Your task to perform on an android device: turn off location history Image 0: 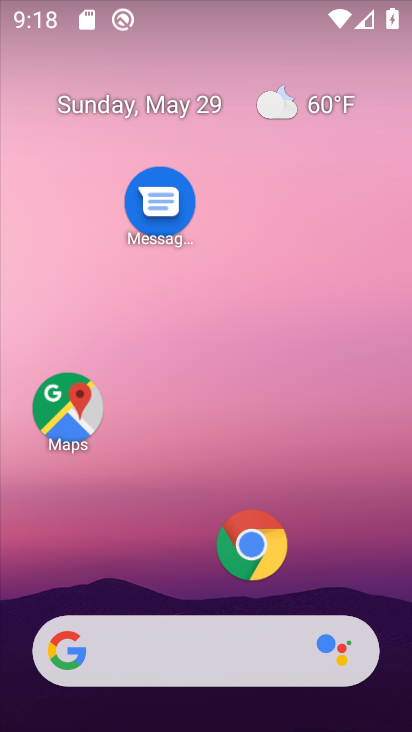
Step 0: drag from (241, 611) to (333, 106)
Your task to perform on an android device: turn off location history Image 1: 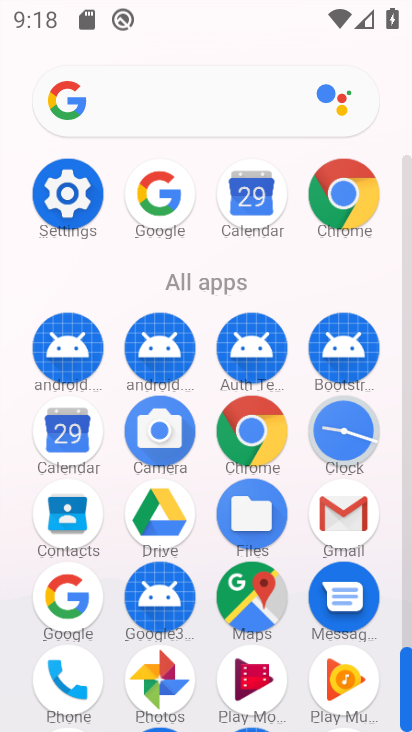
Step 1: click (76, 185)
Your task to perform on an android device: turn off location history Image 2: 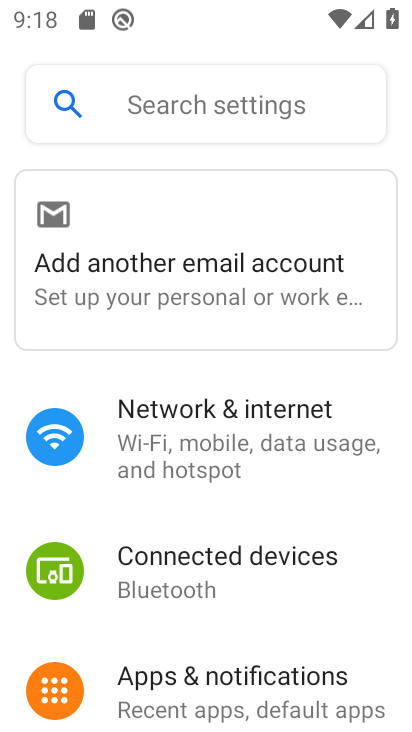
Step 2: click (186, 710)
Your task to perform on an android device: turn off location history Image 3: 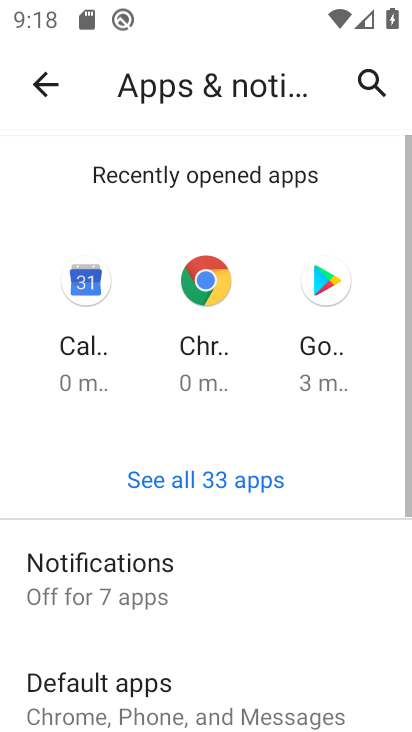
Step 3: press back button
Your task to perform on an android device: turn off location history Image 4: 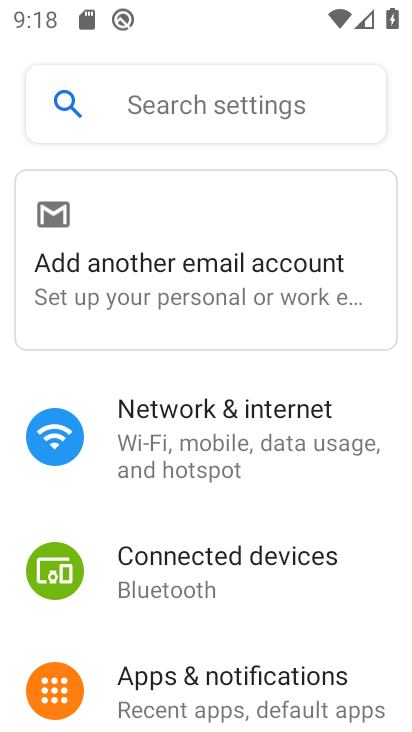
Step 4: drag from (217, 713) to (291, 166)
Your task to perform on an android device: turn off location history Image 5: 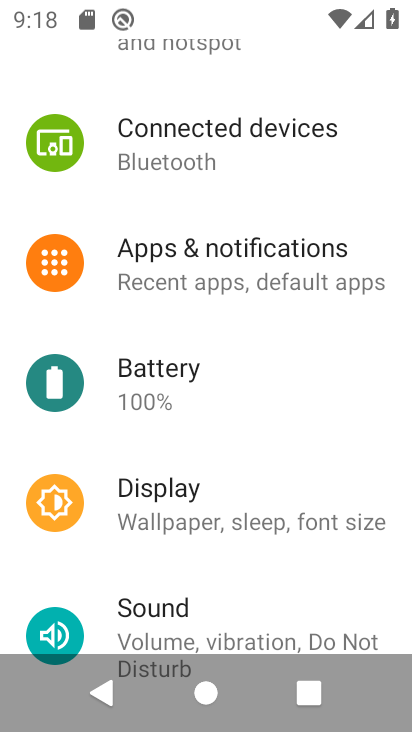
Step 5: drag from (297, 623) to (325, 195)
Your task to perform on an android device: turn off location history Image 6: 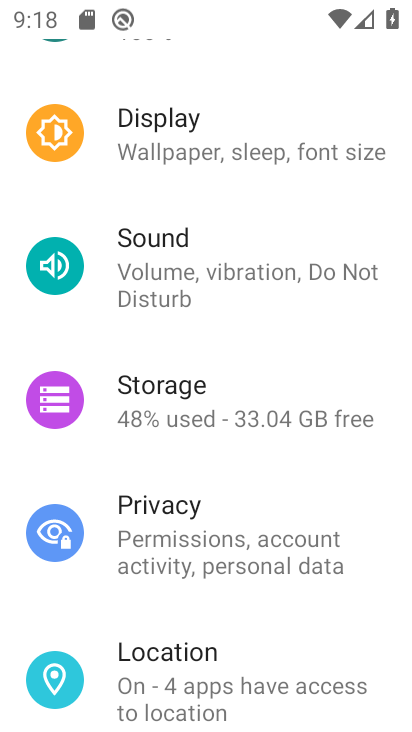
Step 6: click (177, 664)
Your task to perform on an android device: turn off location history Image 7: 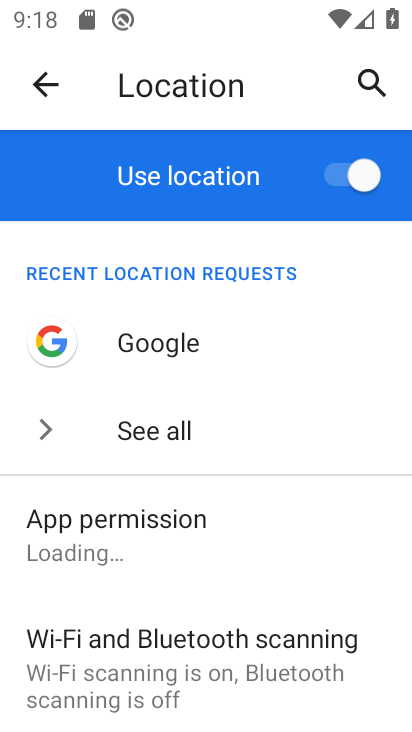
Step 7: click (171, 698)
Your task to perform on an android device: turn off location history Image 8: 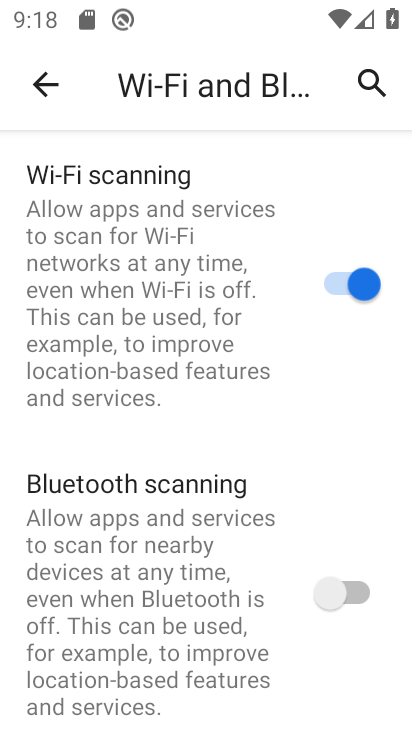
Step 8: click (284, 160)
Your task to perform on an android device: turn off location history Image 9: 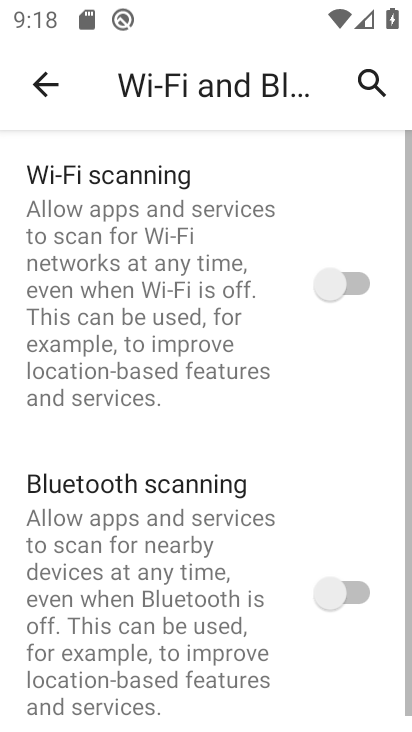
Step 9: click (36, 82)
Your task to perform on an android device: turn off location history Image 10: 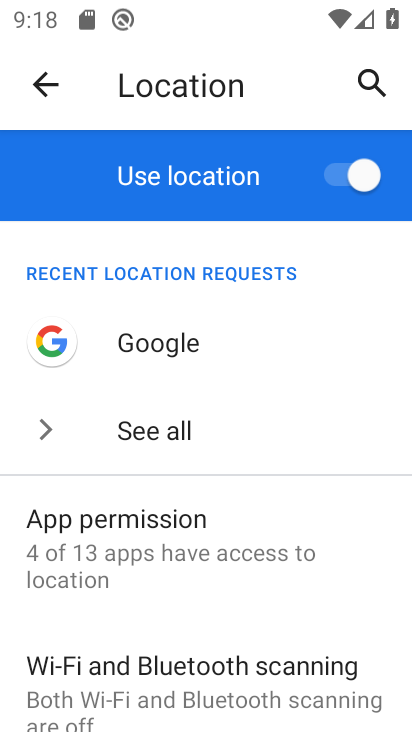
Step 10: drag from (246, 579) to (285, 203)
Your task to perform on an android device: turn off location history Image 11: 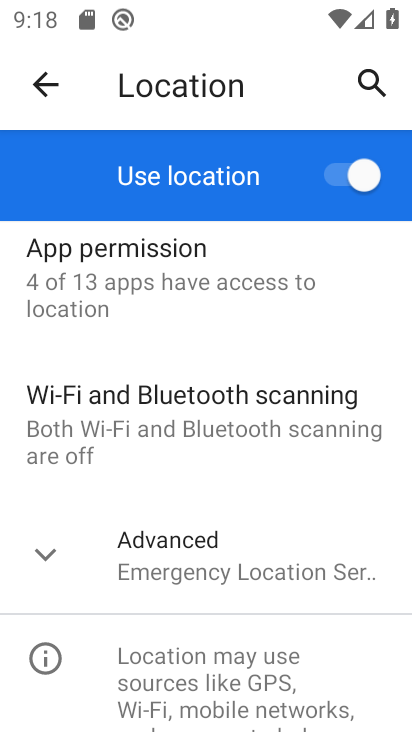
Step 11: click (204, 556)
Your task to perform on an android device: turn off location history Image 12: 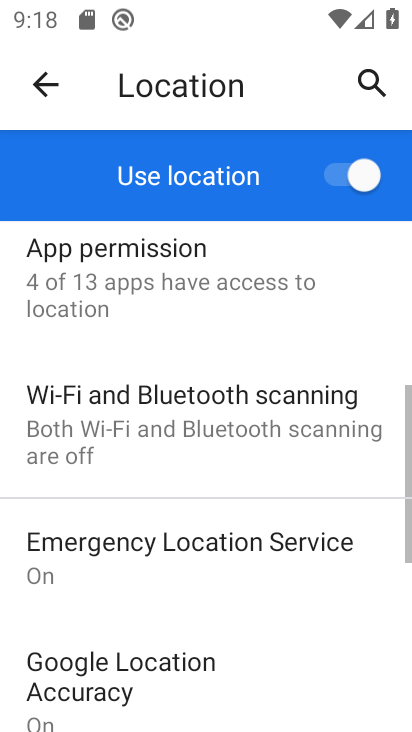
Step 12: drag from (312, 699) to (329, 227)
Your task to perform on an android device: turn off location history Image 13: 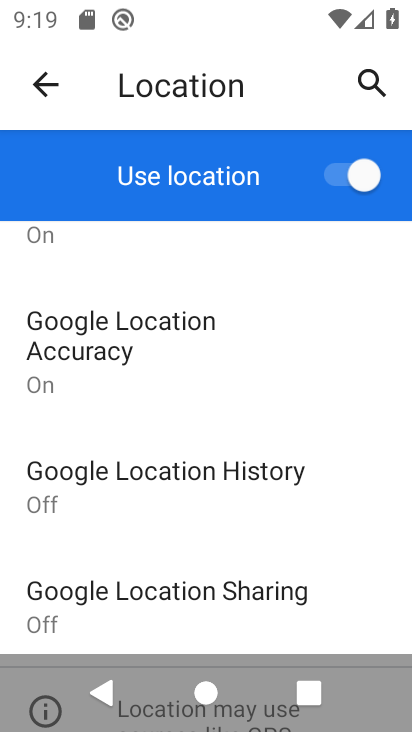
Step 13: click (222, 591)
Your task to perform on an android device: turn off location history Image 14: 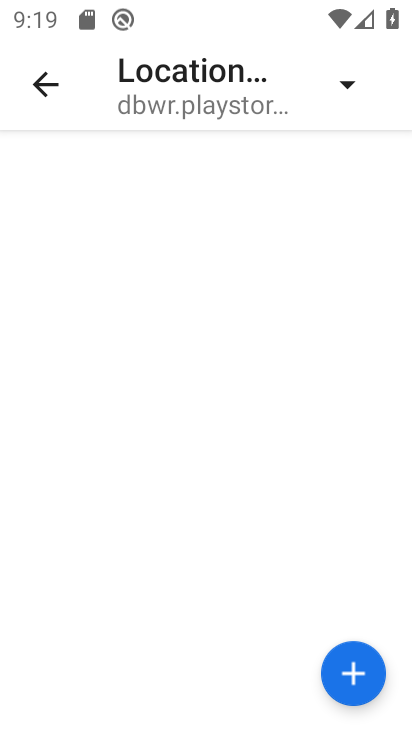
Step 14: press back button
Your task to perform on an android device: turn off location history Image 15: 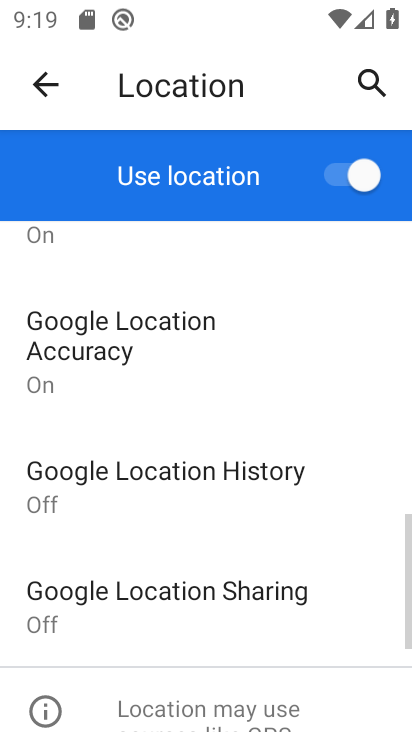
Step 15: click (80, 486)
Your task to perform on an android device: turn off location history Image 16: 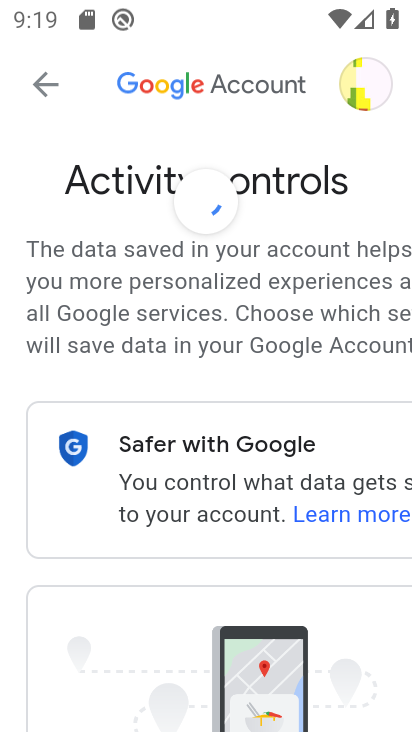
Step 16: drag from (314, 704) to (365, 155)
Your task to perform on an android device: turn off location history Image 17: 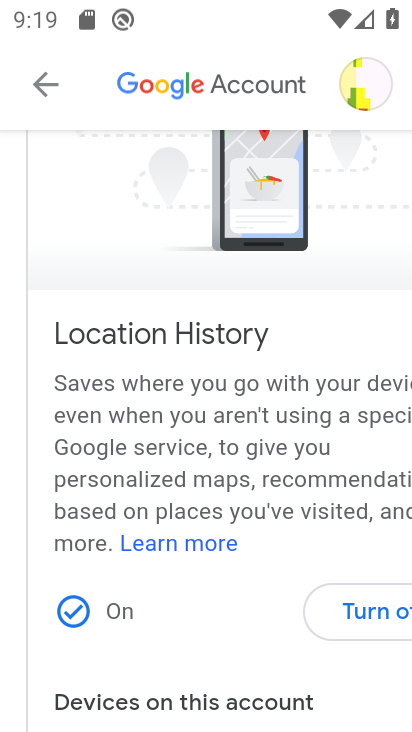
Step 17: click (370, 608)
Your task to perform on an android device: turn off location history Image 18: 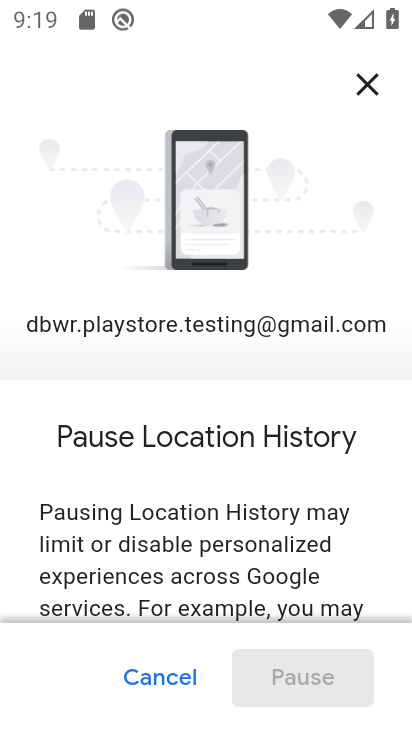
Step 18: drag from (374, 242) to (391, 127)
Your task to perform on an android device: turn off location history Image 19: 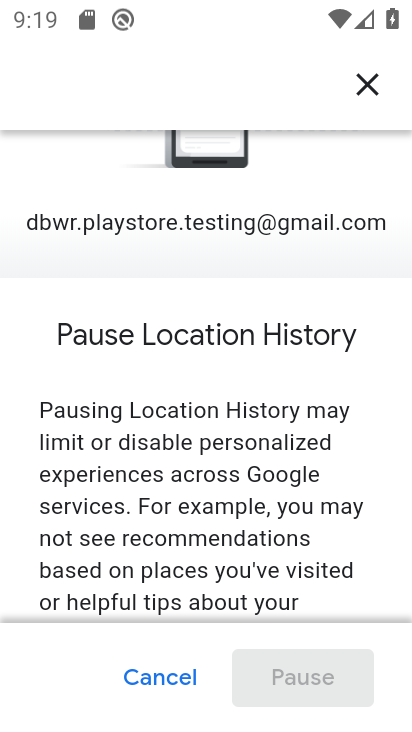
Step 19: drag from (259, 609) to (315, 167)
Your task to perform on an android device: turn off location history Image 20: 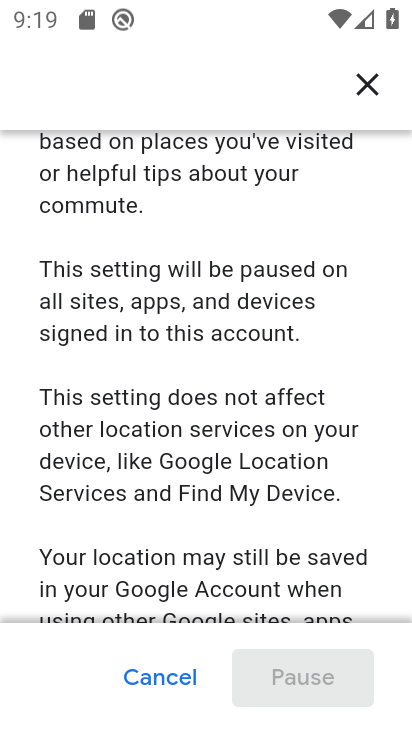
Step 20: drag from (313, 613) to (313, 287)
Your task to perform on an android device: turn off location history Image 21: 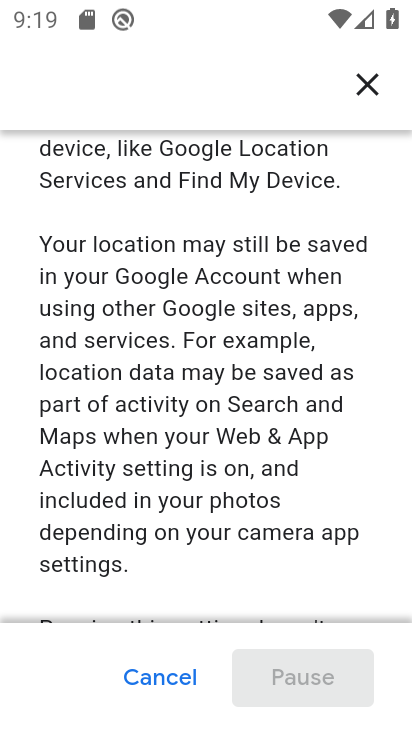
Step 21: drag from (300, 588) to (318, 255)
Your task to perform on an android device: turn off location history Image 22: 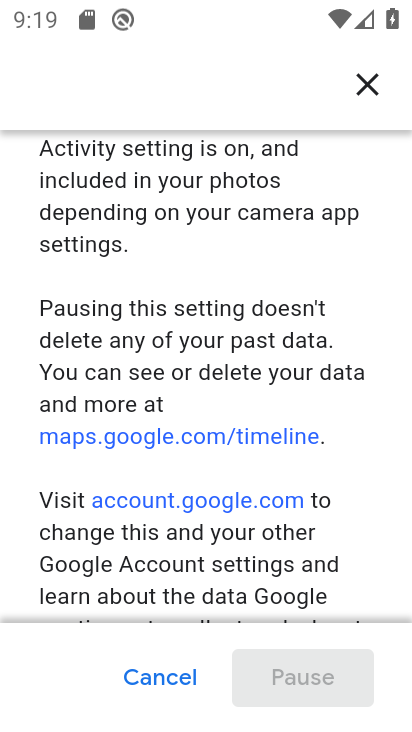
Step 22: drag from (323, 605) to (376, 257)
Your task to perform on an android device: turn off location history Image 23: 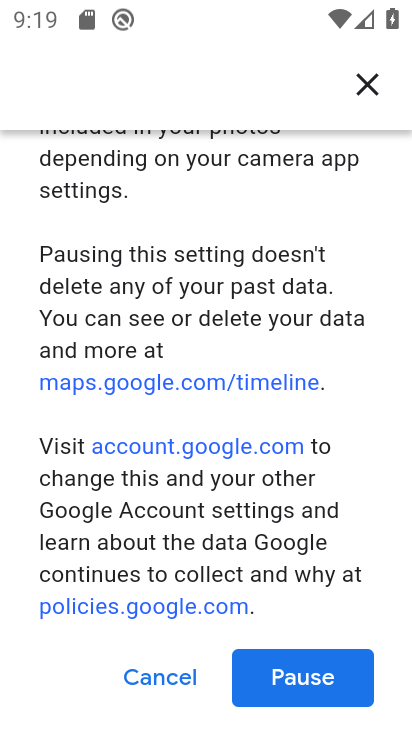
Step 23: click (317, 674)
Your task to perform on an android device: turn off location history Image 24: 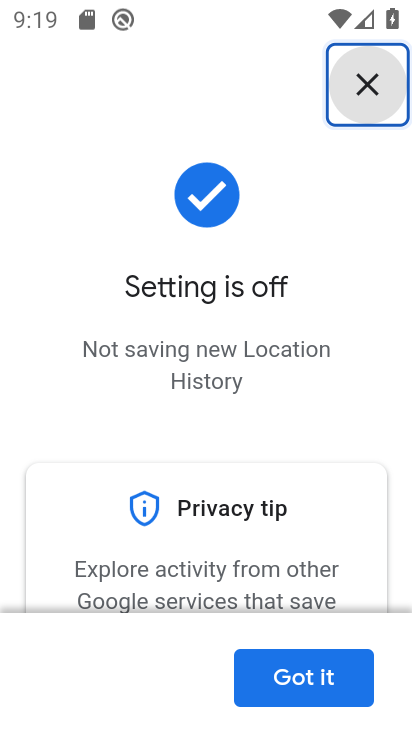
Step 24: click (295, 701)
Your task to perform on an android device: turn off location history Image 25: 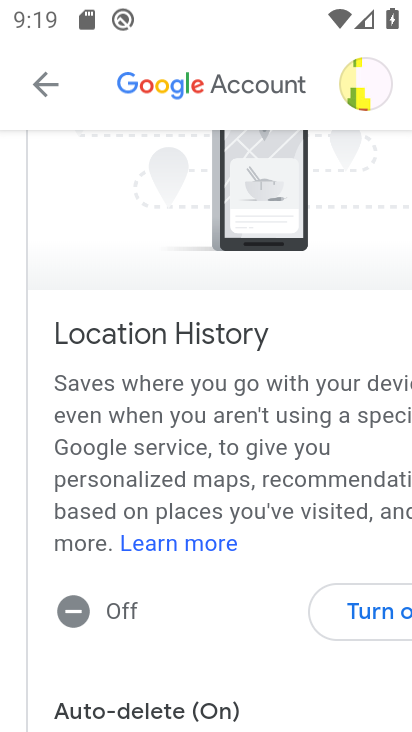
Step 25: task complete